Your task to perform on an android device: clear history in the chrome app Image 0: 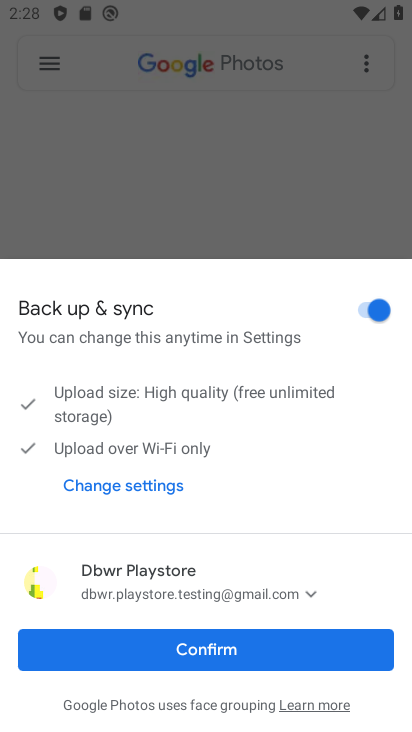
Step 0: click (356, 658)
Your task to perform on an android device: clear history in the chrome app Image 1: 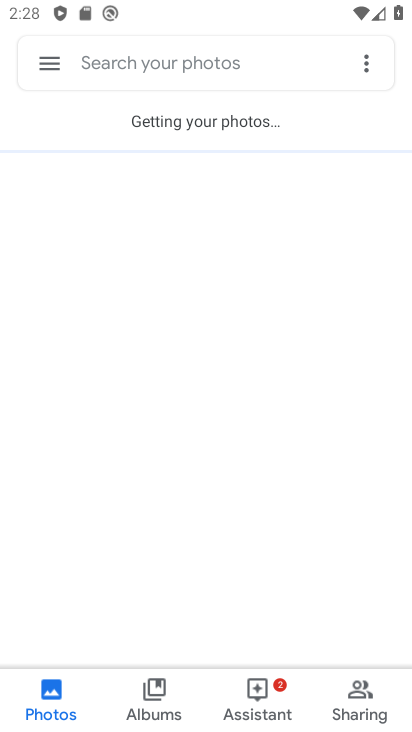
Step 1: press home button
Your task to perform on an android device: clear history in the chrome app Image 2: 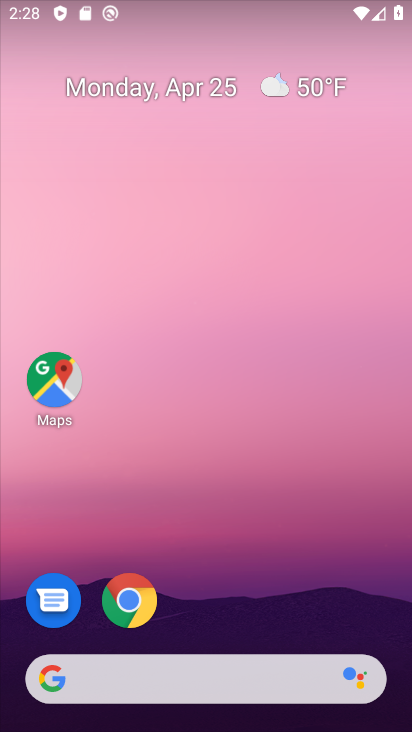
Step 2: drag from (381, 607) to (348, 177)
Your task to perform on an android device: clear history in the chrome app Image 3: 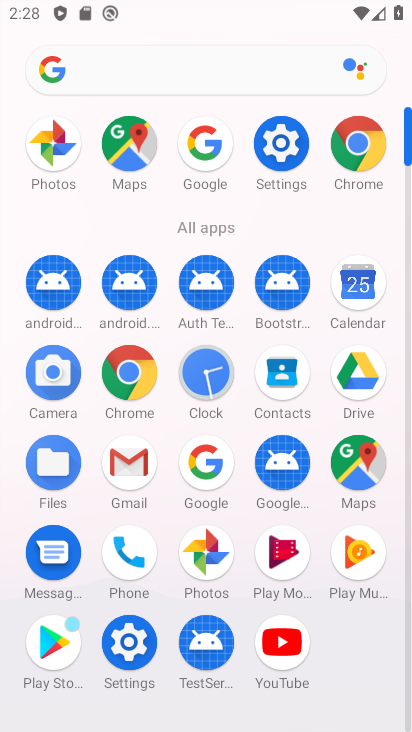
Step 3: click (128, 389)
Your task to perform on an android device: clear history in the chrome app Image 4: 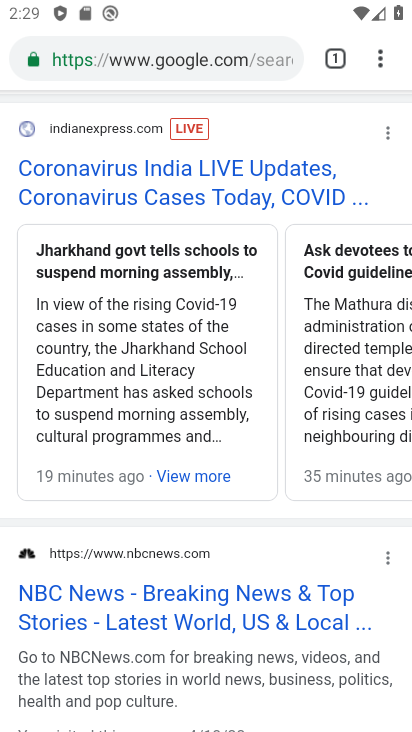
Step 4: drag from (388, 66) to (284, 409)
Your task to perform on an android device: clear history in the chrome app Image 5: 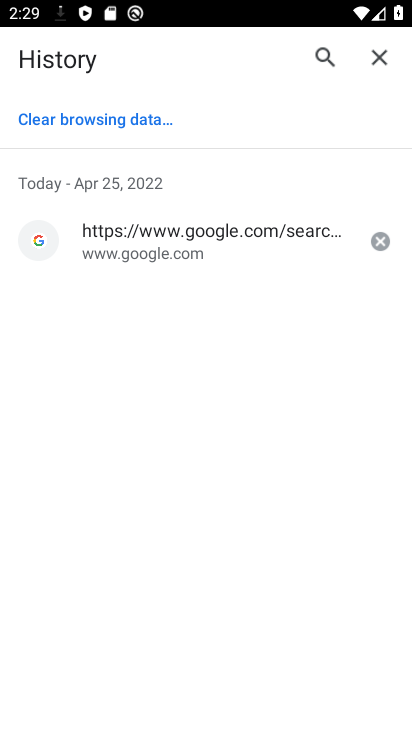
Step 5: click (111, 118)
Your task to perform on an android device: clear history in the chrome app Image 6: 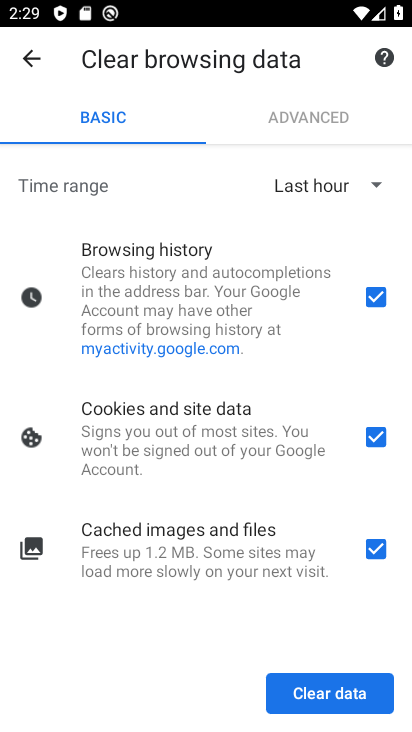
Step 6: click (311, 698)
Your task to perform on an android device: clear history in the chrome app Image 7: 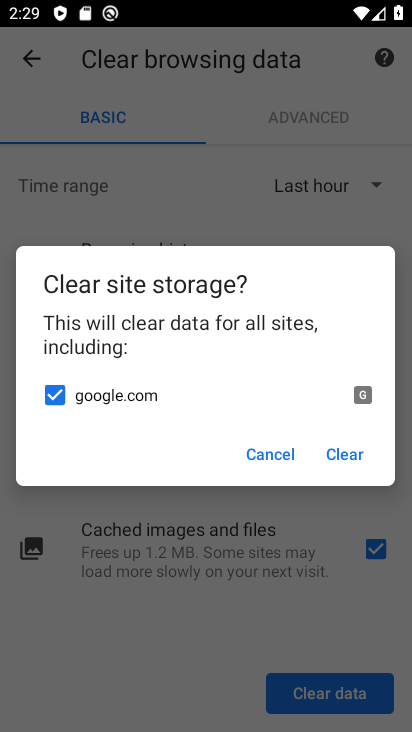
Step 7: click (349, 446)
Your task to perform on an android device: clear history in the chrome app Image 8: 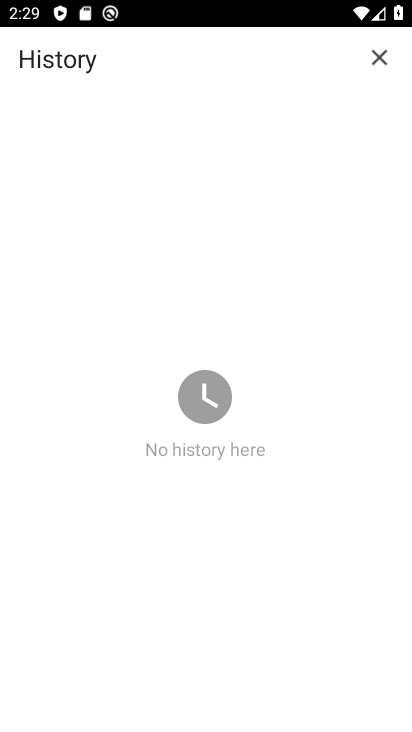
Step 8: task complete